Your task to perform on an android device: Show me the alarms in the clock app Image 0: 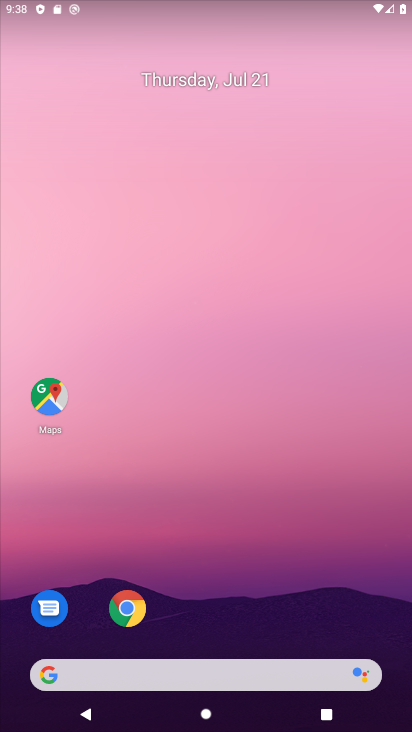
Step 0: drag from (181, 675) to (157, 42)
Your task to perform on an android device: Show me the alarms in the clock app Image 1: 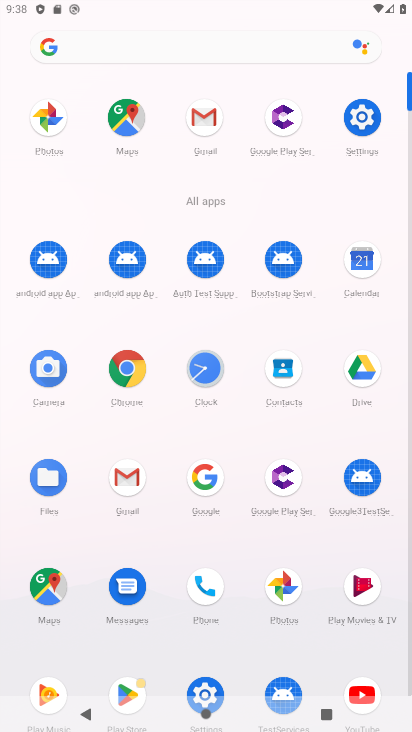
Step 1: click (197, 367)
Your task to perform on an android device: Show me the alarms in the clock app Image 2: 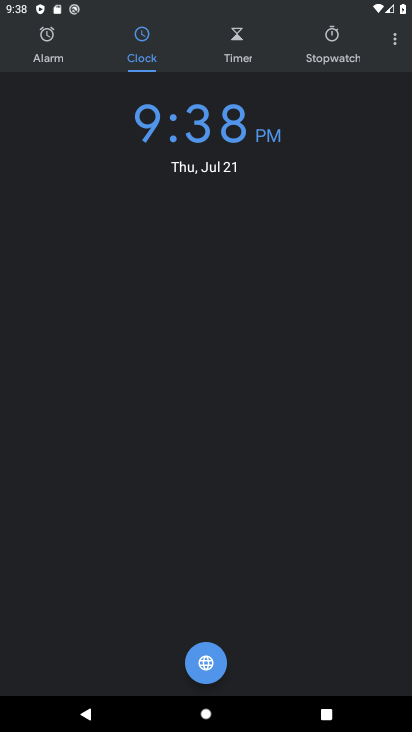
Step 2: click (39, 69)
Your task to perform on an android device: Show me the alarms in the clock app Image 3: 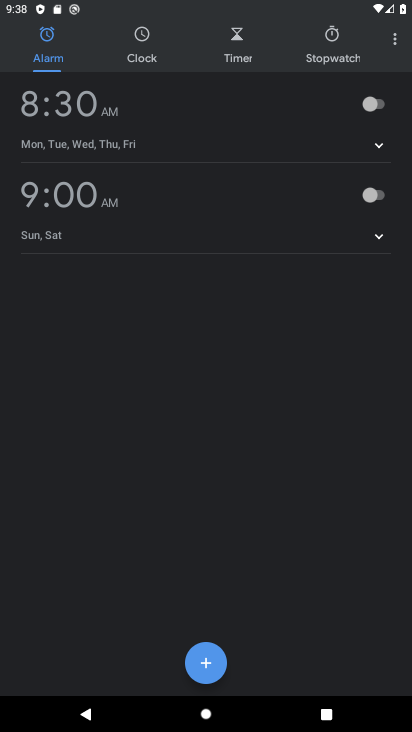
Step 3: task complete